Your task to perform on an android device: turn off airplane mode Image 0: 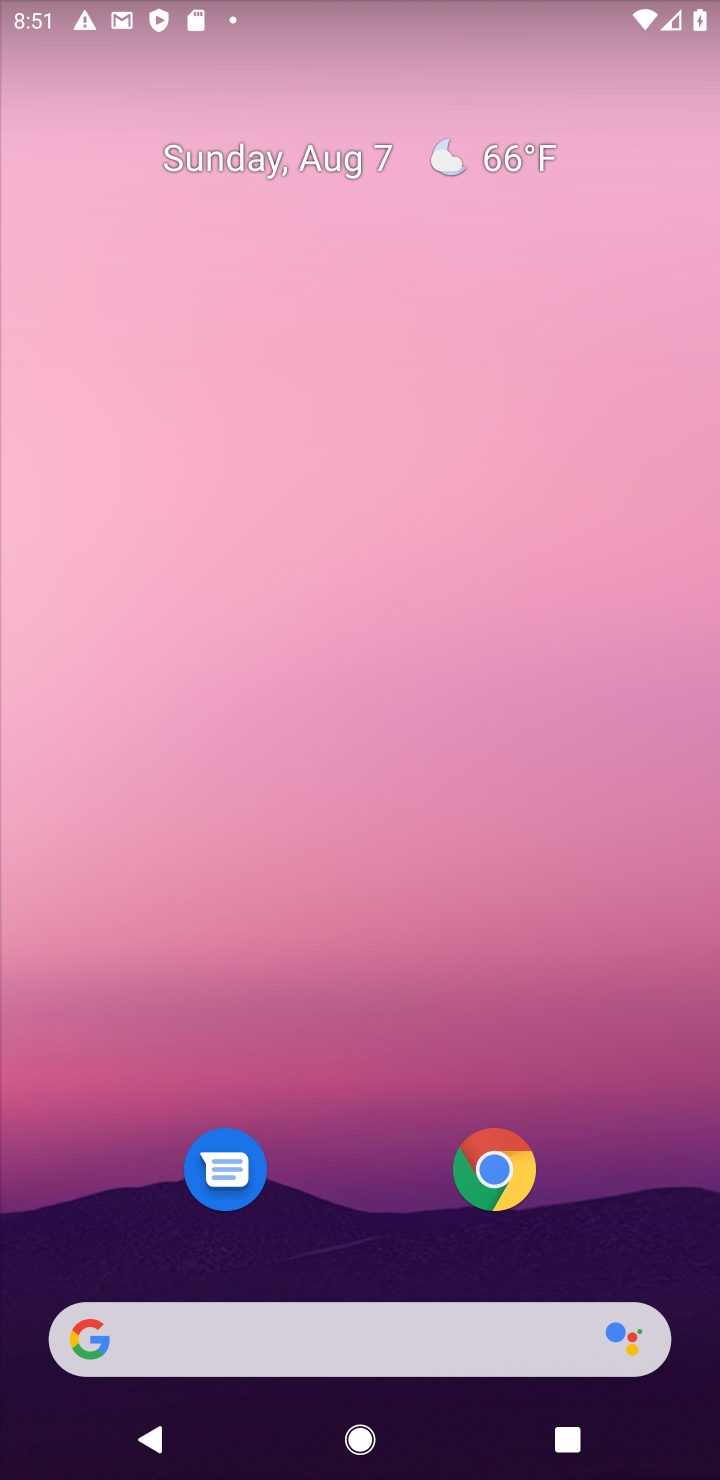
Step 0: press back button
Your task to perform on an android device: turn off airplane mode Image 1: 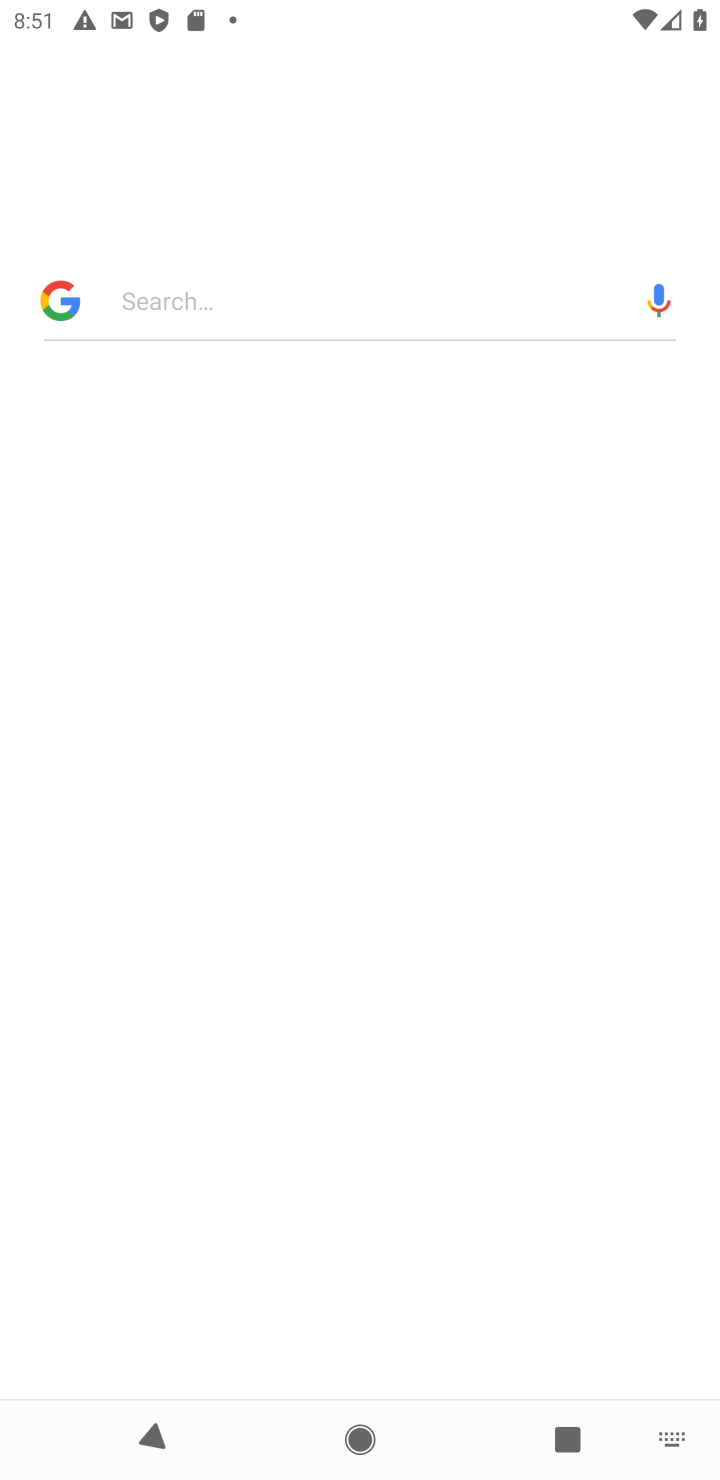
Step 1: drag from (334, 1243) to (313, 55)
Your task to perform on an android device: turn off airplane mode Image 2: 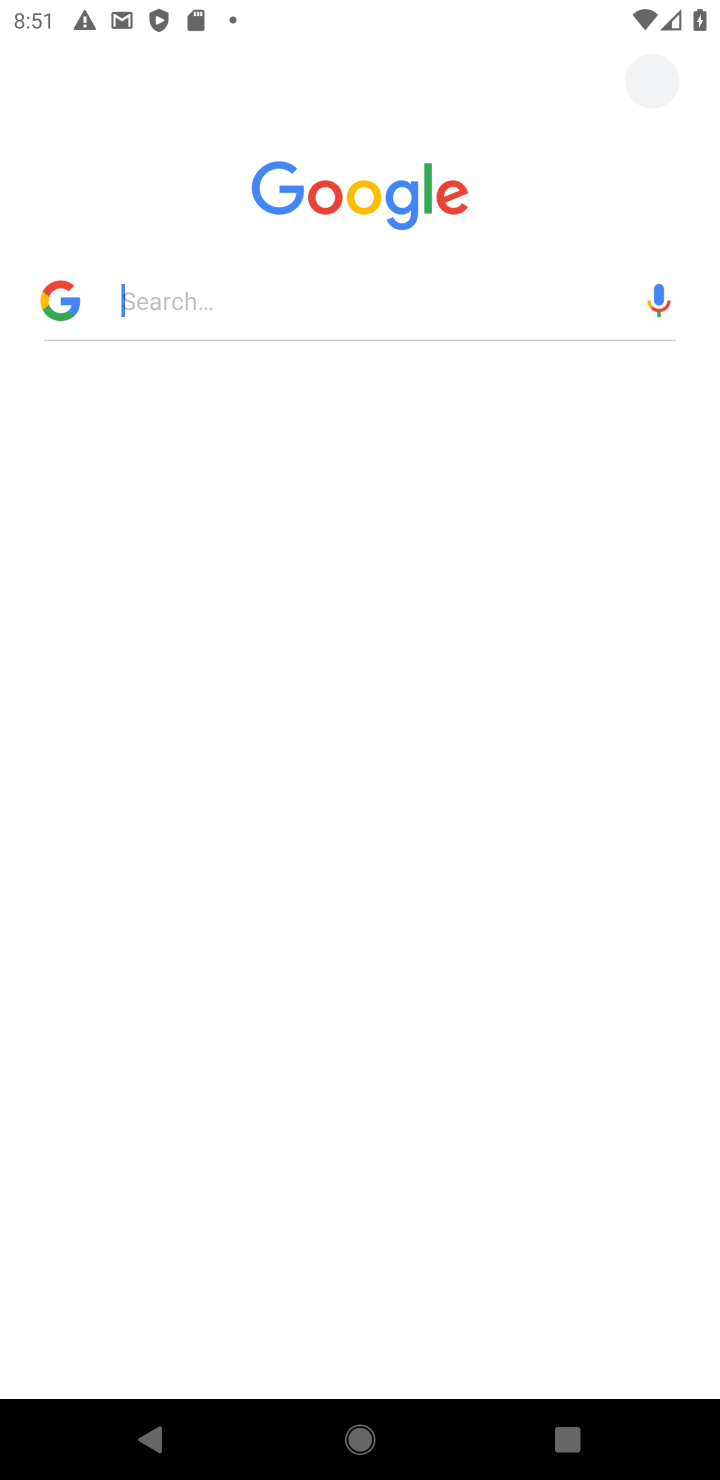
Step 2: press back button
Your task to perform on an android device: turn off airplane mode Image 3: 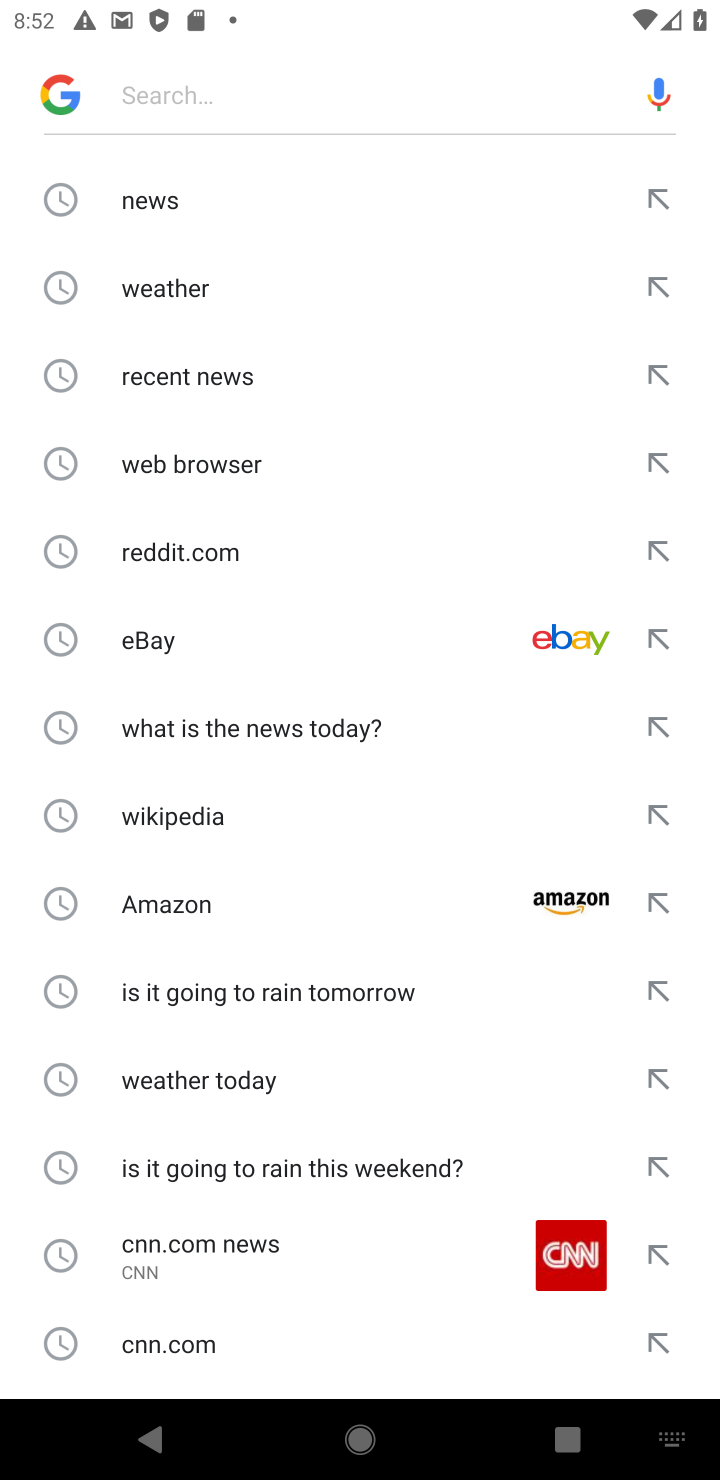
Step 3: press back button
Your task to perform on an android device: turn off airplane mode Image 4: 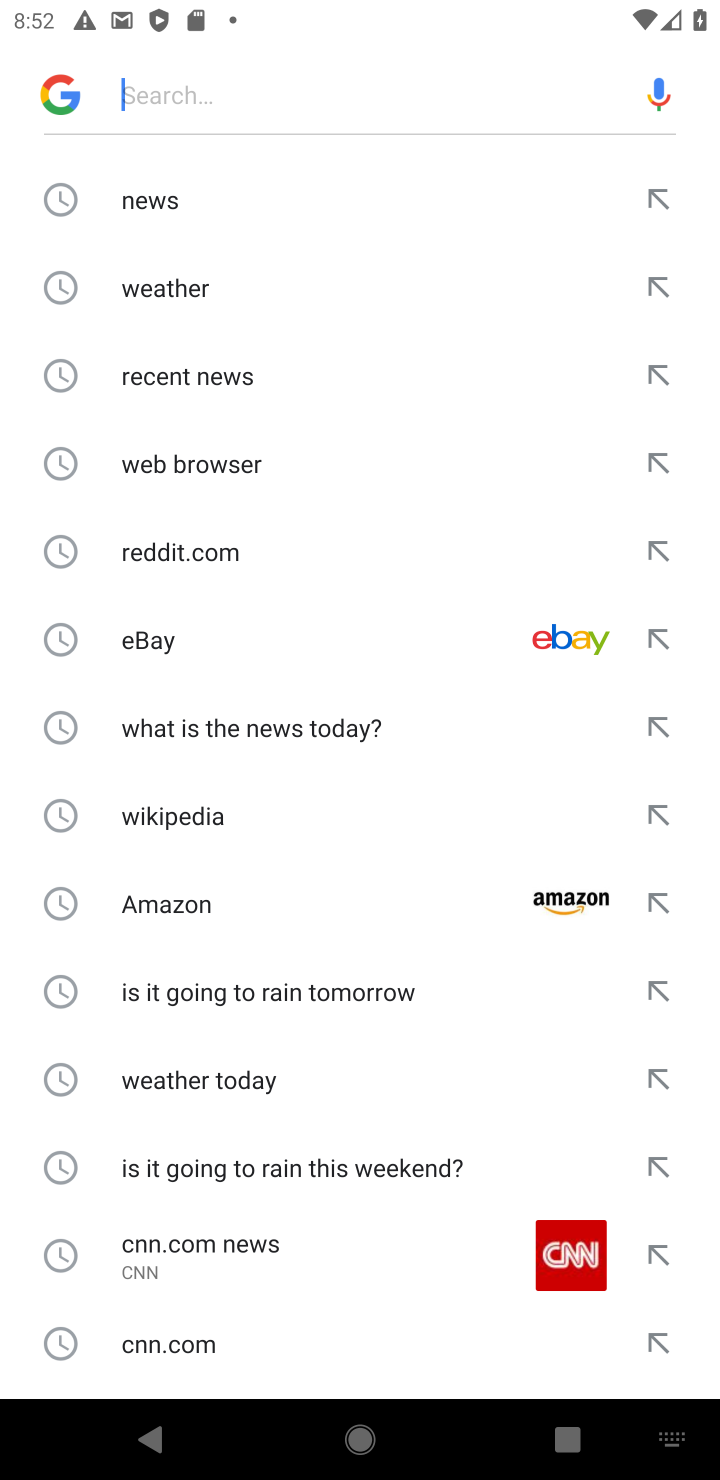
Step 4: press back button
Your task to perform on an android device: turn off airplane mode Image 5: 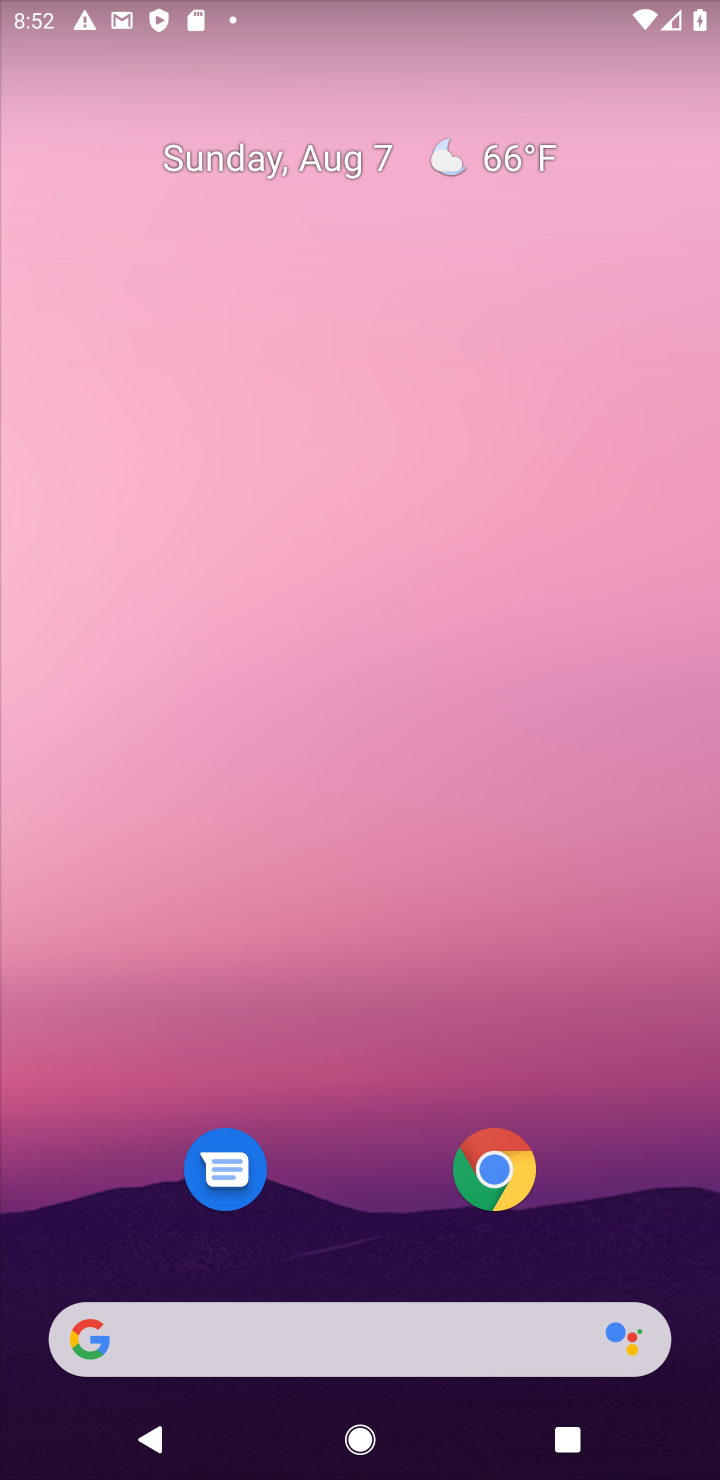
Step 5: press home button
Your task to perform on an android device: turn off airplane mode Image 6: 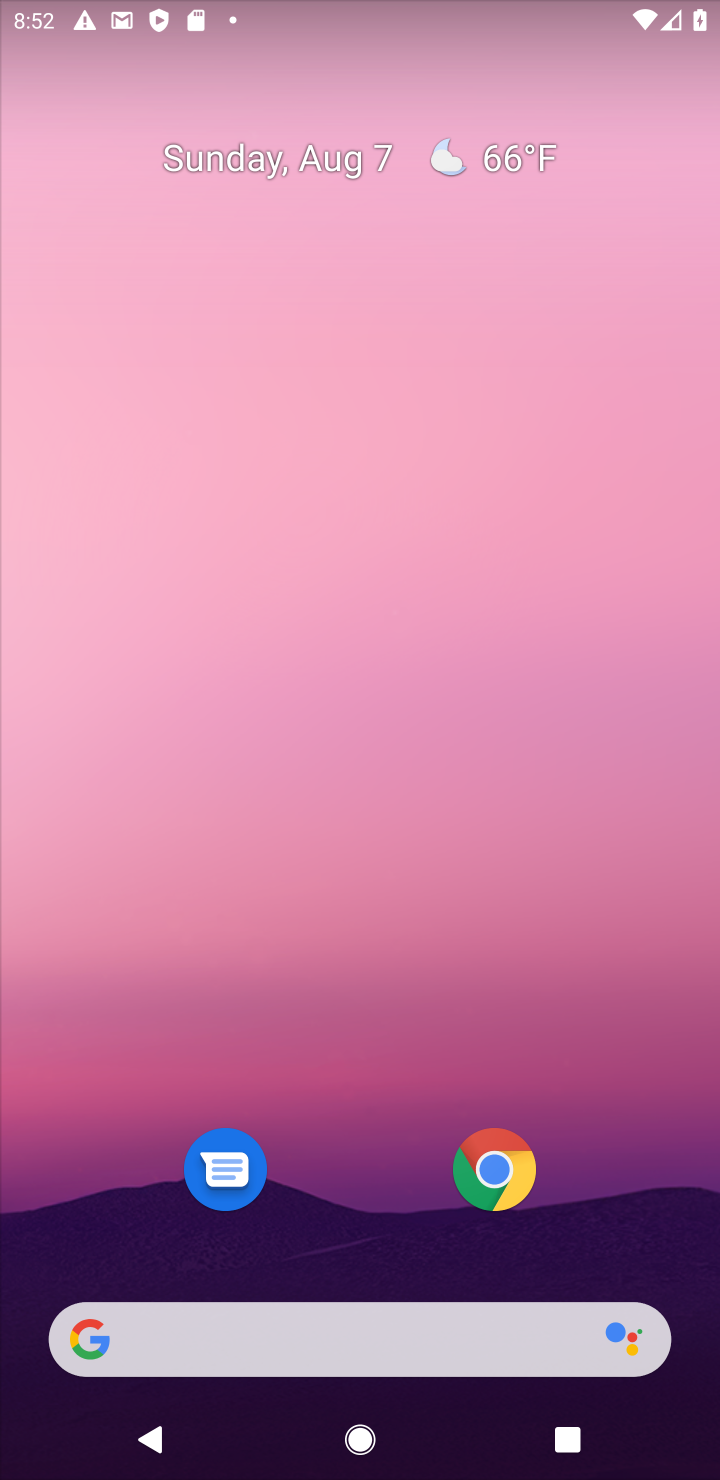
Step 6: drag from (382, 1252) to (220, 9)
Your task to perform on an android device: turn off airplane mode Image 7: 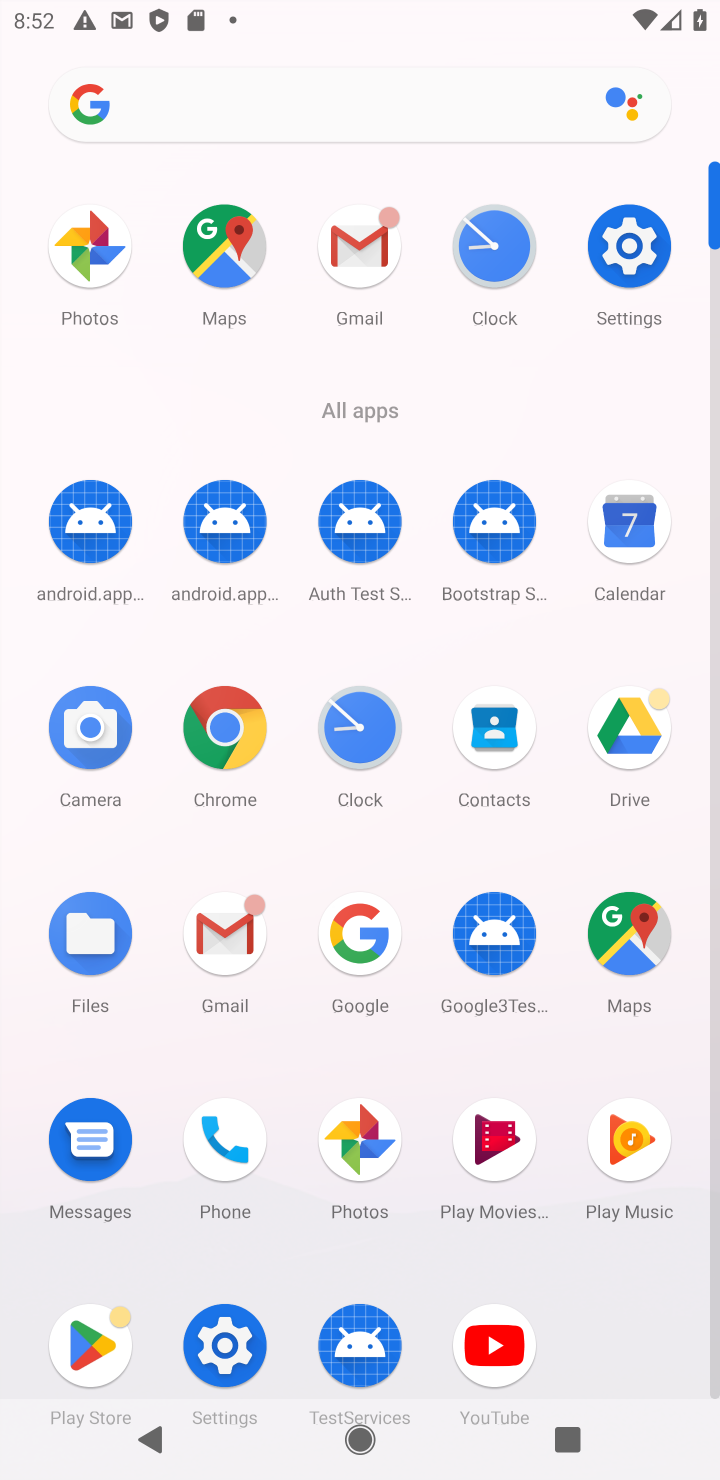
Step 7: click (630, 239)
Your task to perform on an android device: turn off airplane mode Image 8: 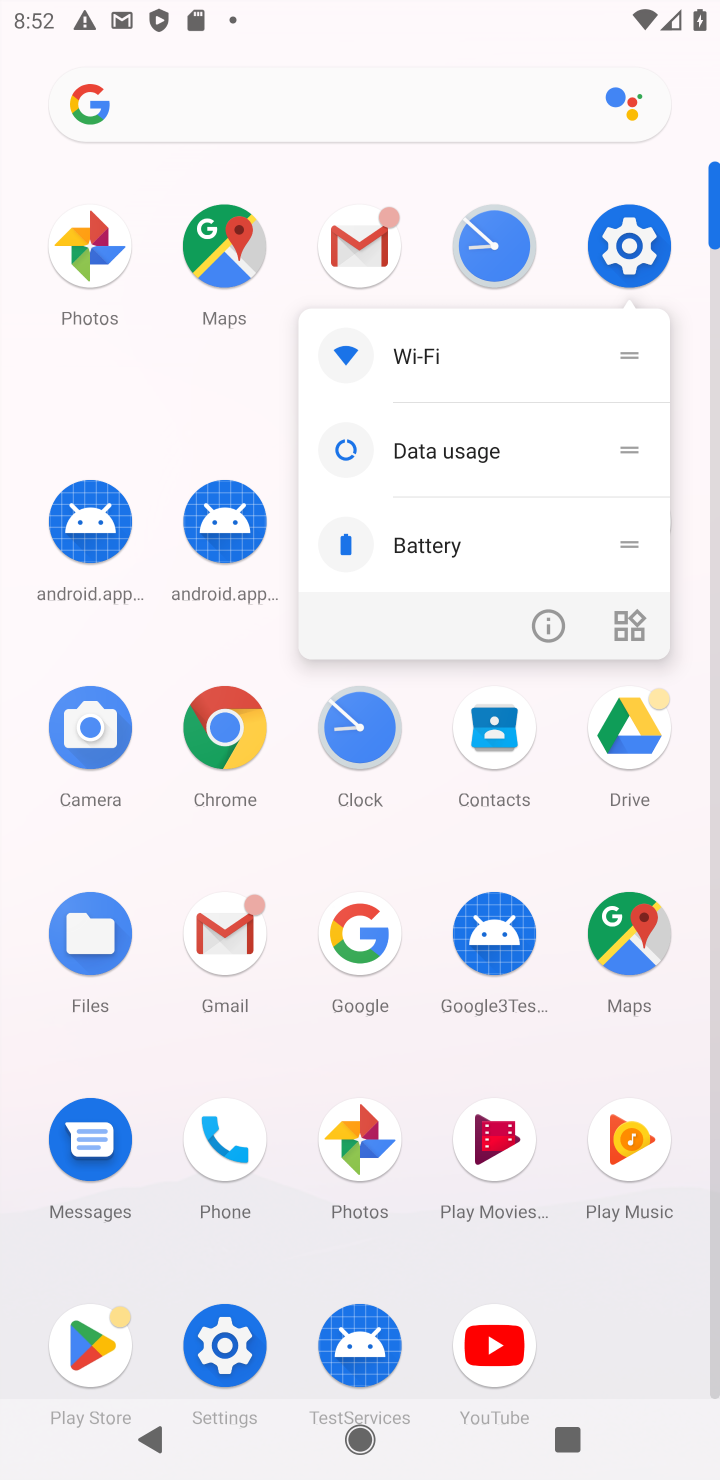
Step 8: click (628, 232)
Your task to perform on an android device: turn off airplane mode Image 9: 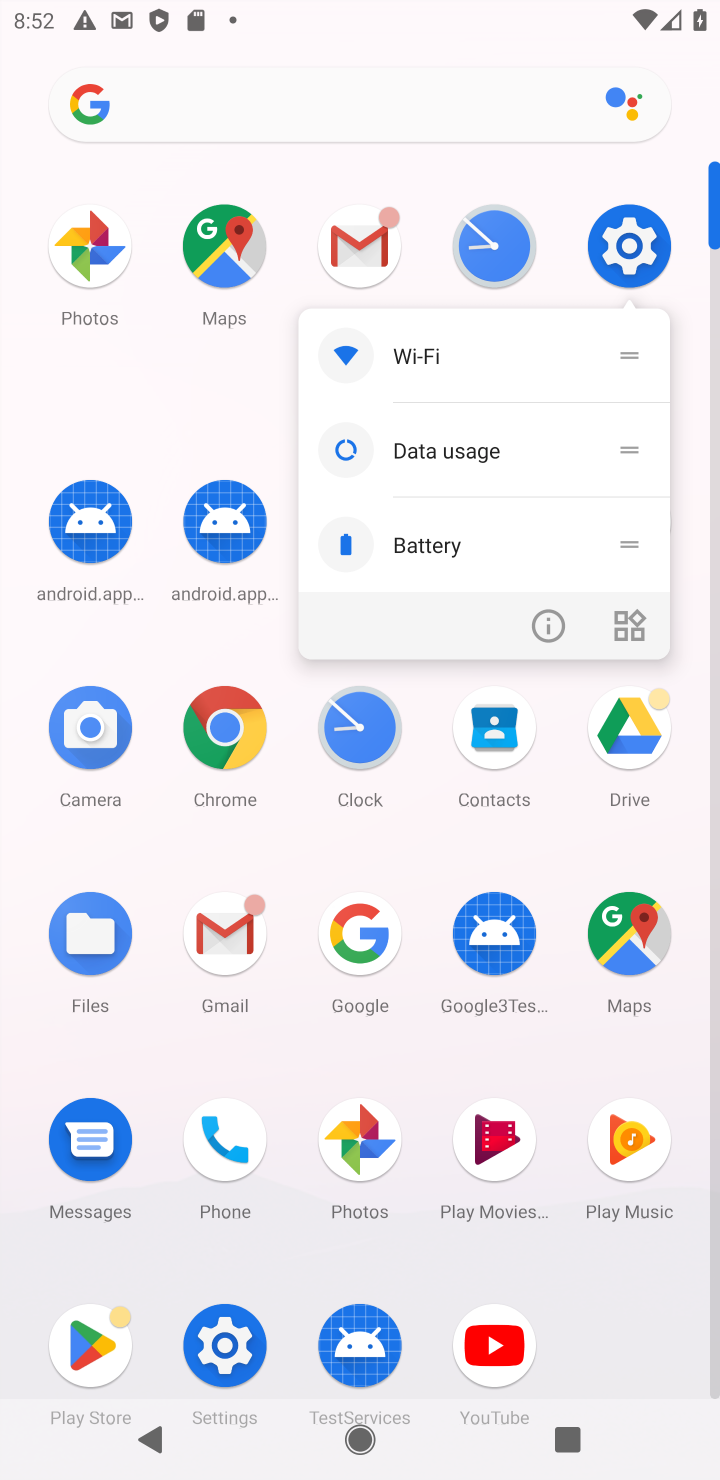
Step 9: click (628, 232)
Your task to perform on an android device: turn off airplane mode Image 10: 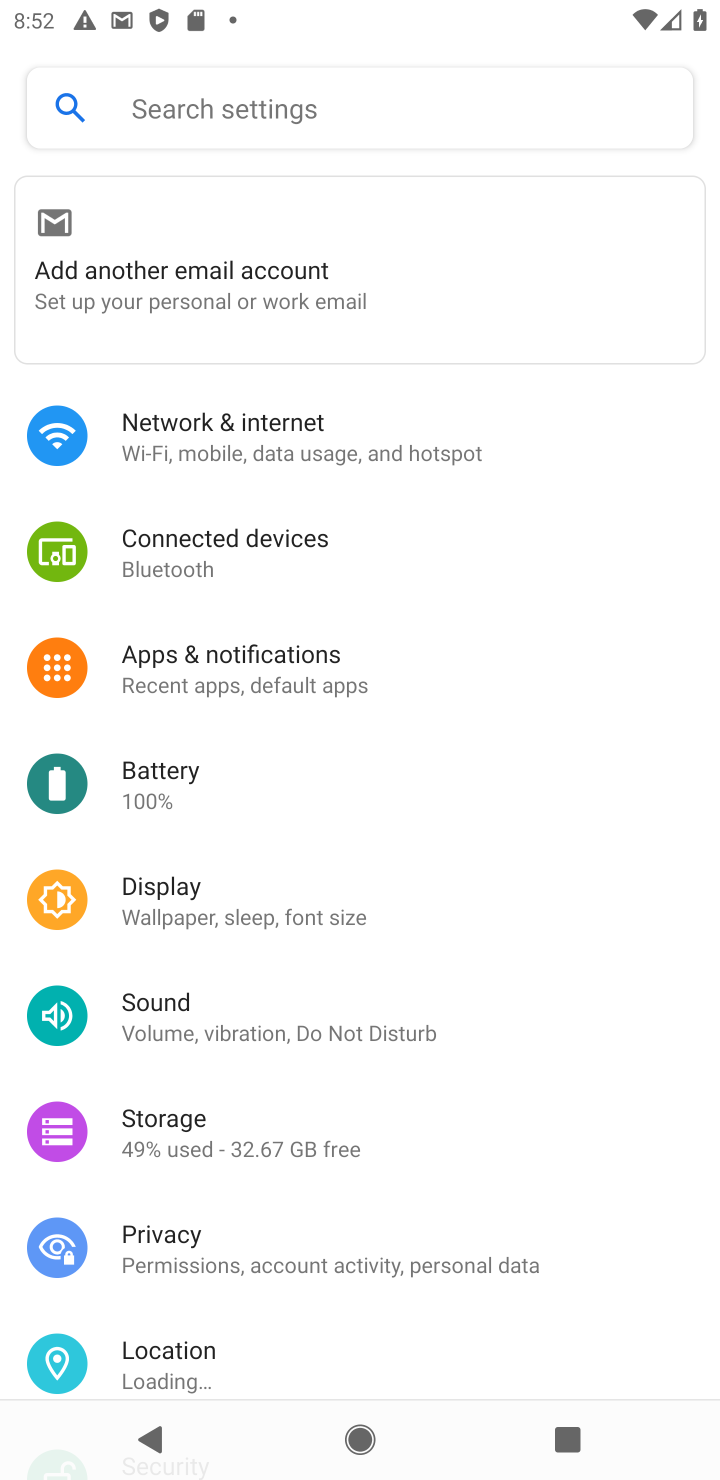
Step 10: click (264, 402)
Your task to perform on an android device: turn off airplane mode Image 11: 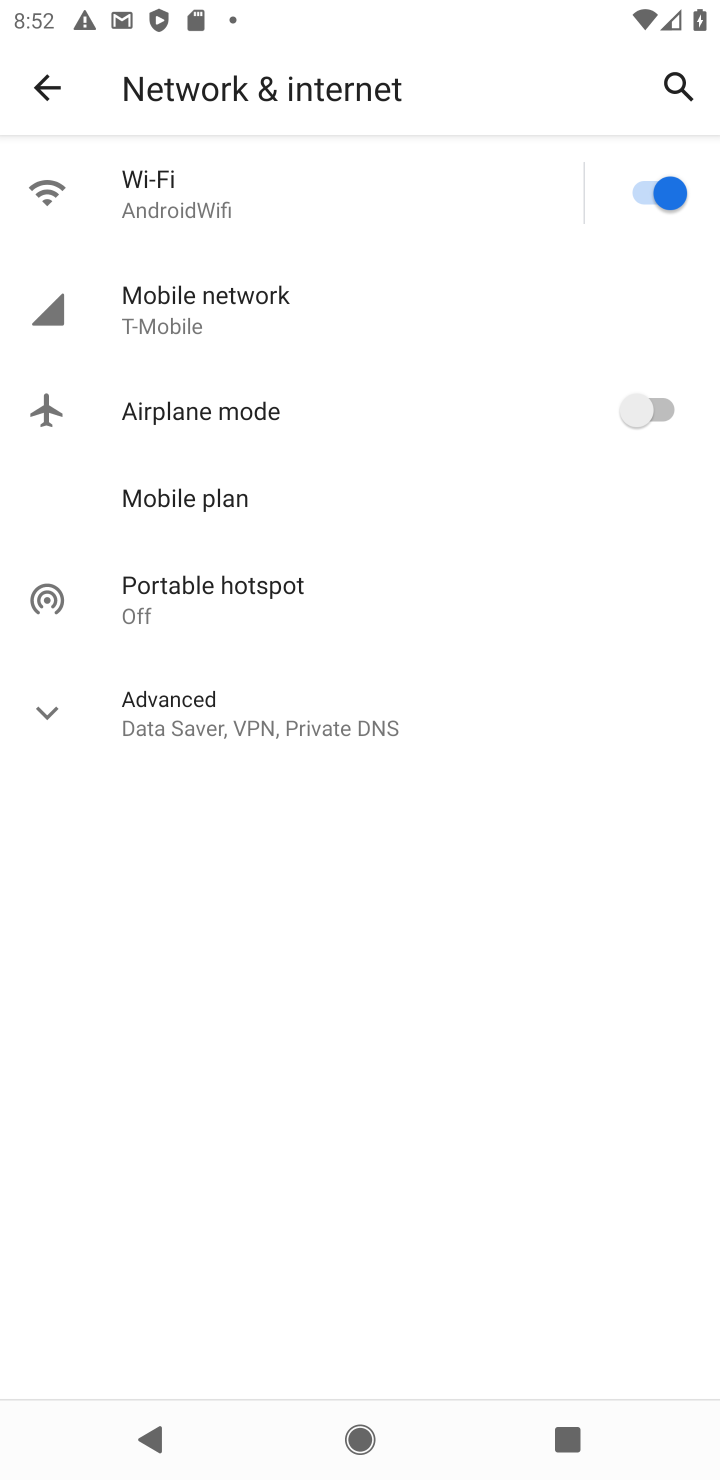
Step 11: task complete